Your task to perform on an android device: turn off translation in the chrome app Image 0: 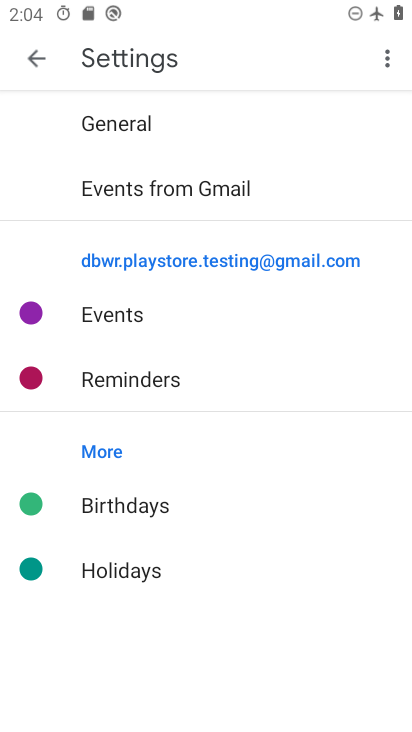
Step 0: press home button
Your task to perform on an android device: turn off translation in the chrome app Image 1: 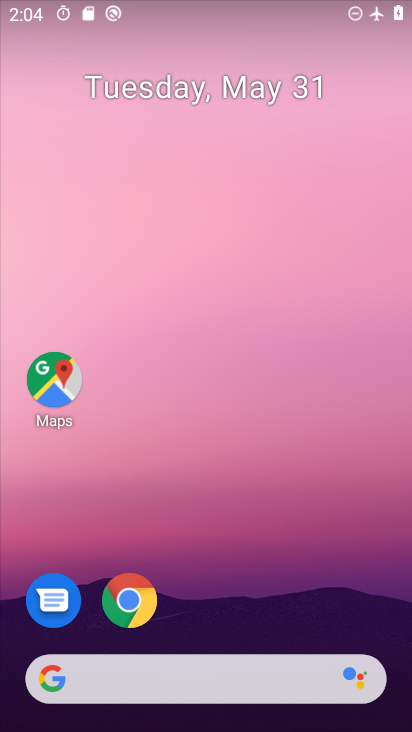
Step 1: click (128, 601)
Your task to perform on an android device: turn off translation in the chrome app Image 2: 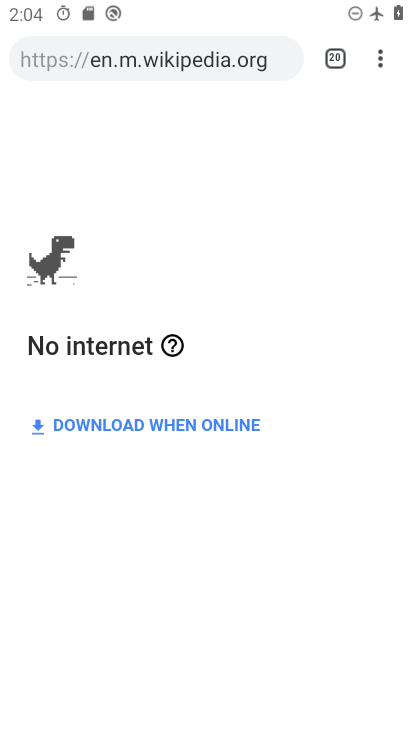
Step 2: click (380, 62)
Your task to perform on an android device: turn off translation in the chrome app Image 3: 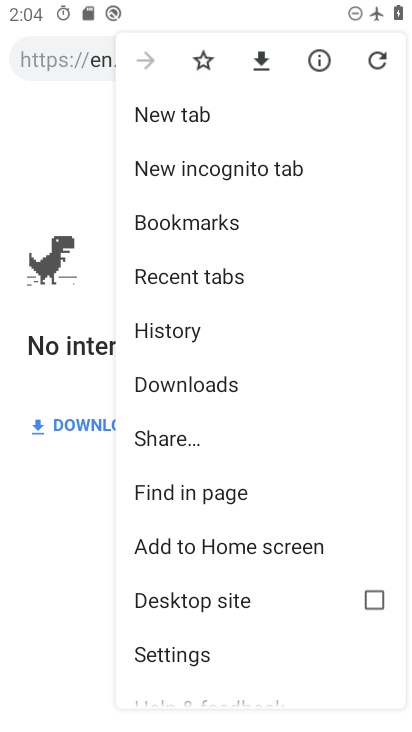
Step 3: click (177, 655)
Your task to perform on an android device: turn off translation in the chrome app Image 4: 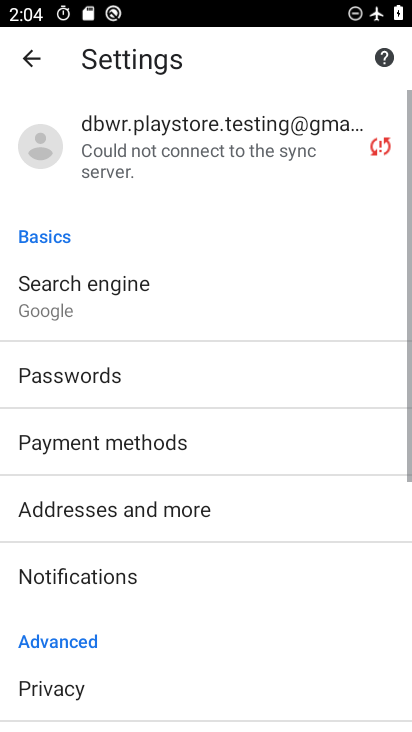
Step 4: drag from (118, 671) to (149, 262)
Your task to perform on an android device: turn off translation in the chrome app Image 5: 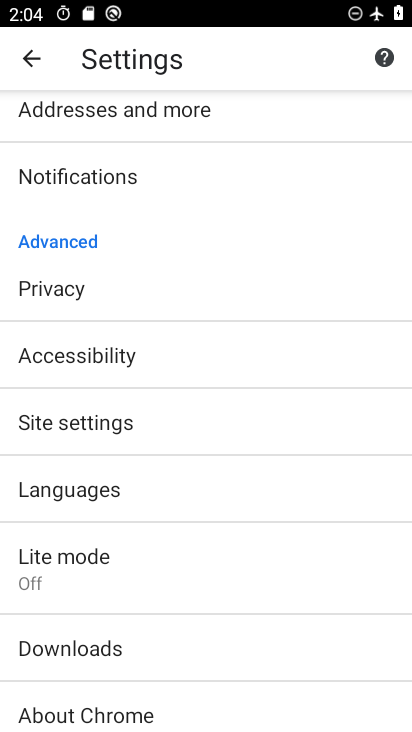
Step 5: click (90, 487)
Your task to perform on an android device: turn off translation in the chrome app Image 6: 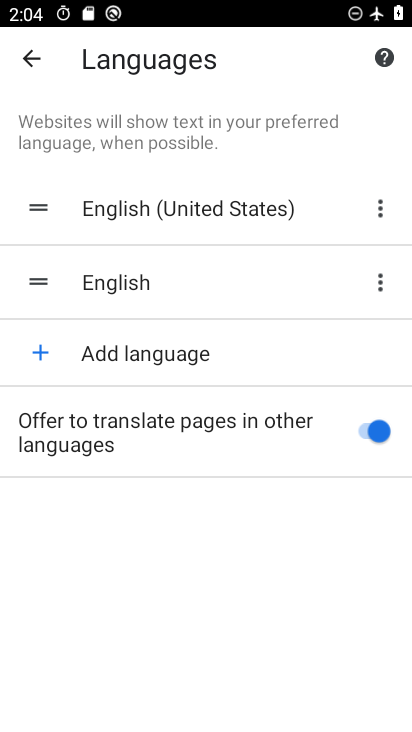
Step 6: click (362, 432)
Your task to perform on an android device: turn off translation in the chrome app Image 7: 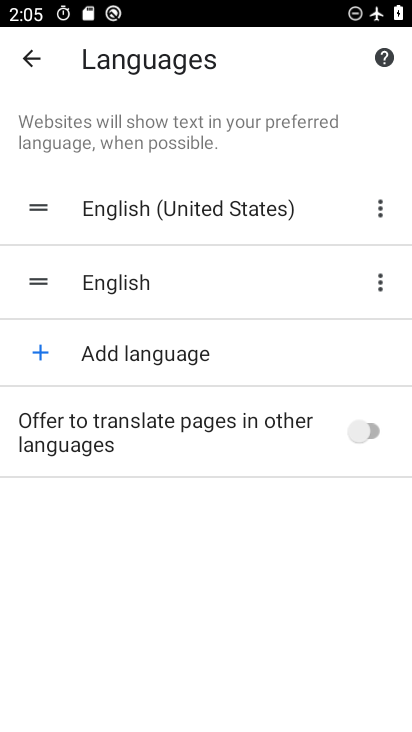
Step 7: task complete